Your task to perform on an android device: View the shopping cart on target.com. Search for "logitech g pro" on target.com, select the first entry, and add it to the cart. Image 0: 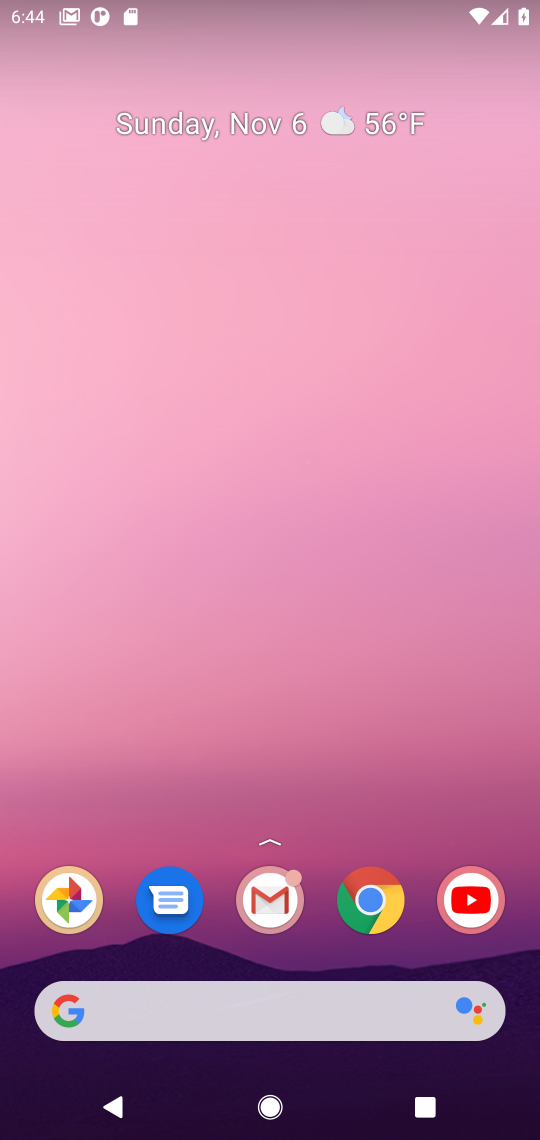
Step 0: drag from (338, 963) to (391, 19)
Your task to perform on an android device: View the shopping cart on target.com. Search for "logitech g pro" on target.com, select the first entry, and add it to the cart. Image 1: 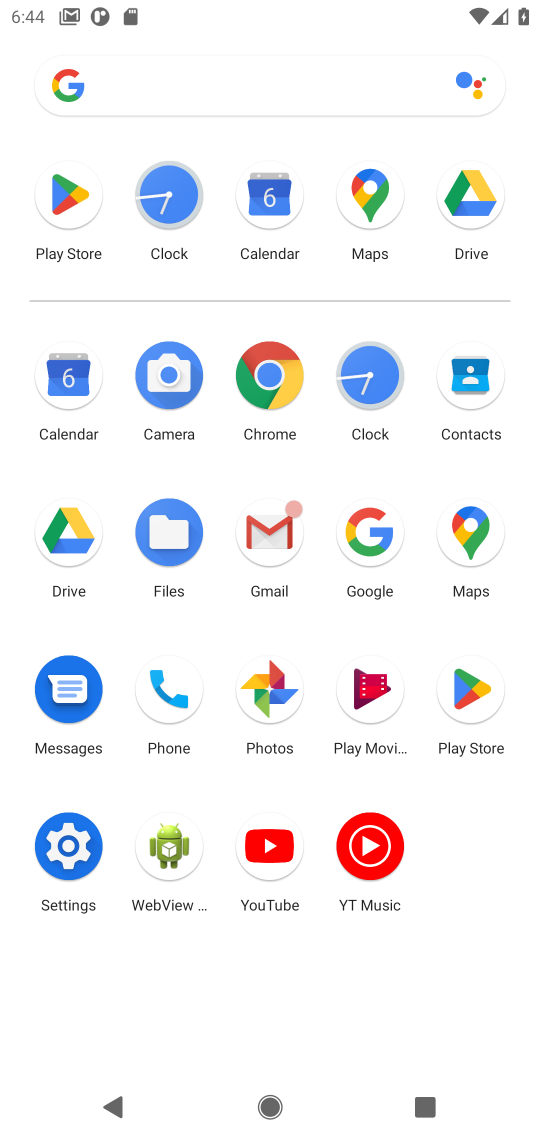
Step 1: click (269, 375)
Your task to perform on an android device: View the shopping cart on target.com. Search for "logitech g pro" on target.com, select the first entry, and add it to the cart. Image 2: 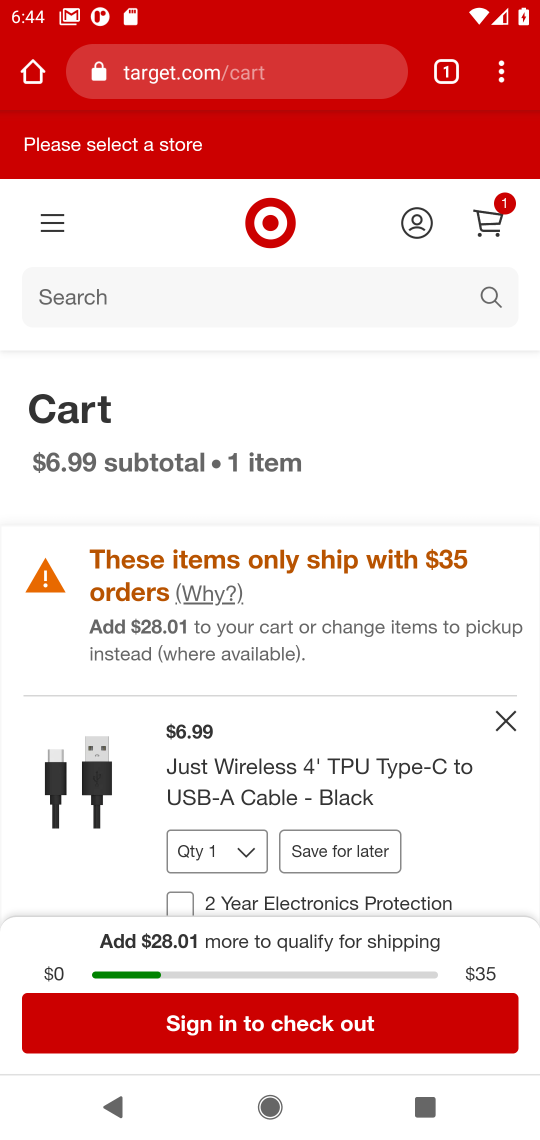
Step 2: click (243, 73)
Your task to perform on an android device: View the shopping cart on target.com. Search for "logitech g pro" on target.com, select the first entry, and add it to the cart. Image 3: 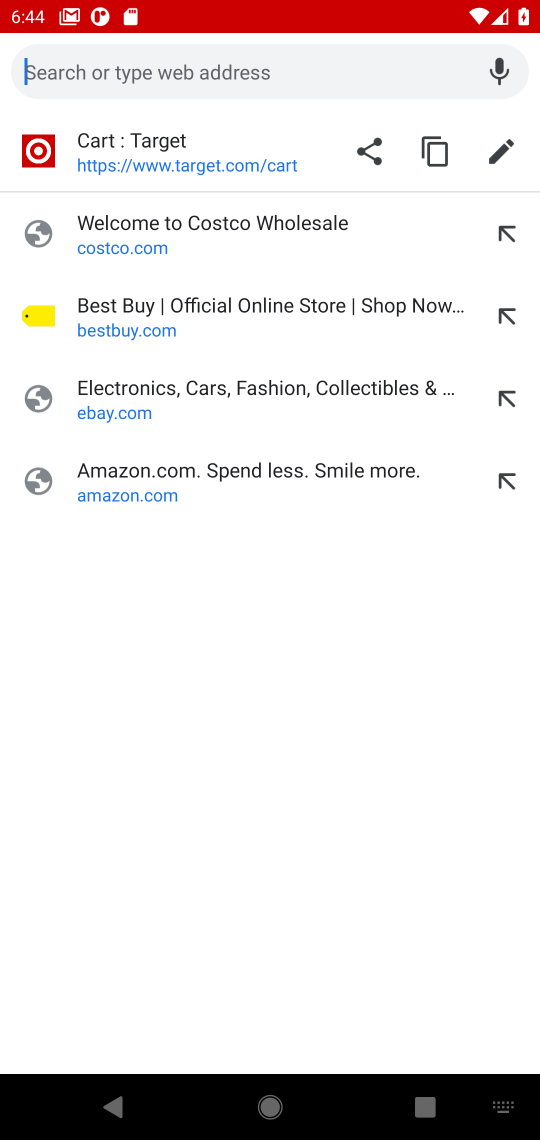
Step 3: type "target.com"
Your task to perform on an android device: View the shopping cart on target.com. Search for "logitech g pro" on target.com, select the first entry, and add it to the cart. Image 4: 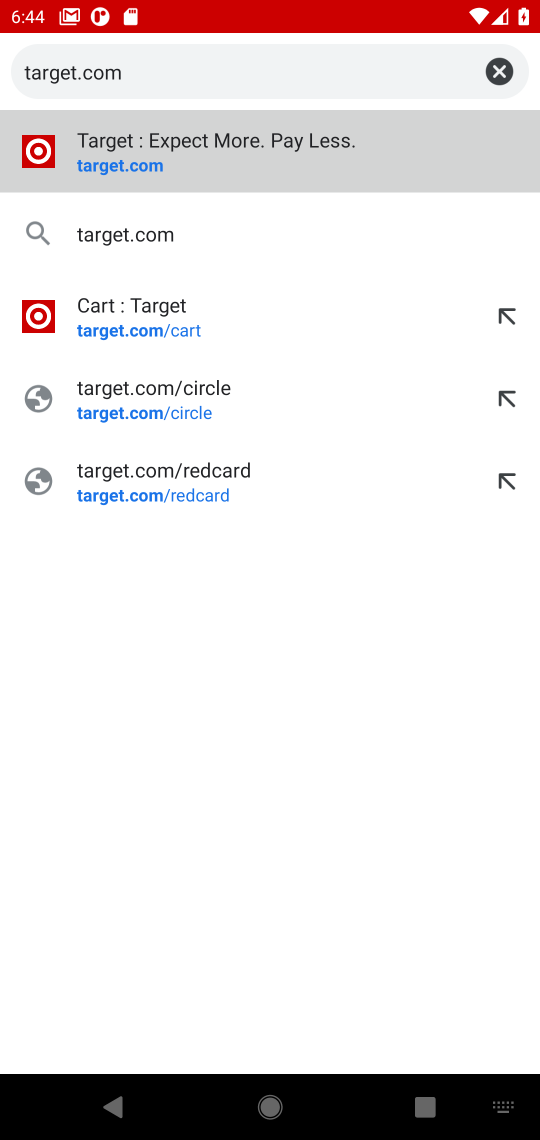
Step 4: press enter
Your task to perform on an android device: View the shopping cart on target.com. Search for "logitech g pro" on target.com, select the first entry, and add it to the cart. Image 5: 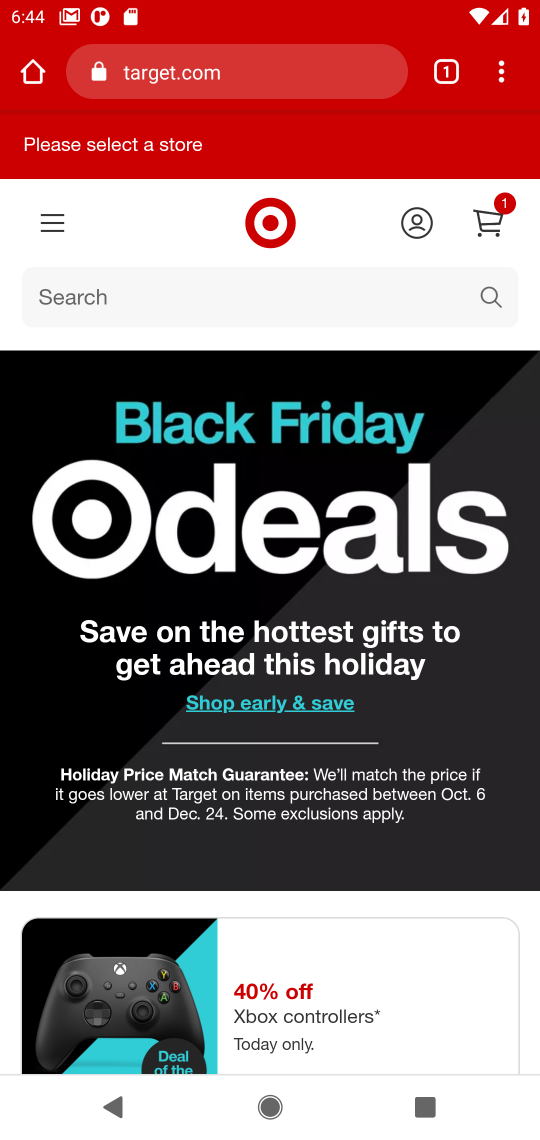
Step 5: click (493, 213)
Your task to perform on an android device: View the shopping cart on target.com. Search for "logitech g pro" on target.com, select the first entry, and add it to the cart. Image 6: 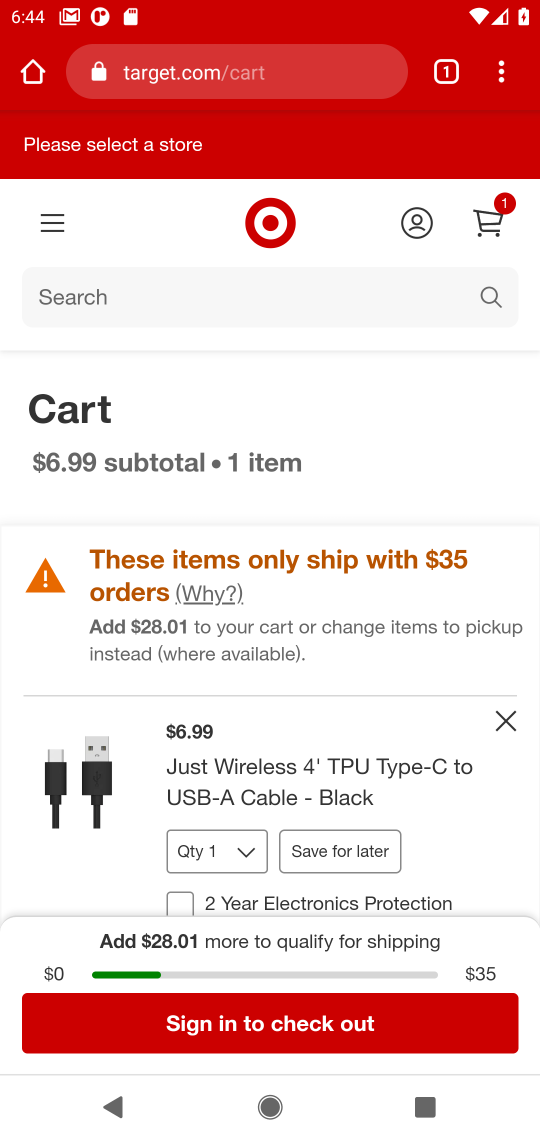
Step 6: click (365, 293)
Your task to perform on an android device: View the shopping cart on target.com. Search for "logitech g pro" on target.com, select the first entry, and add it to the cart. Image 7: 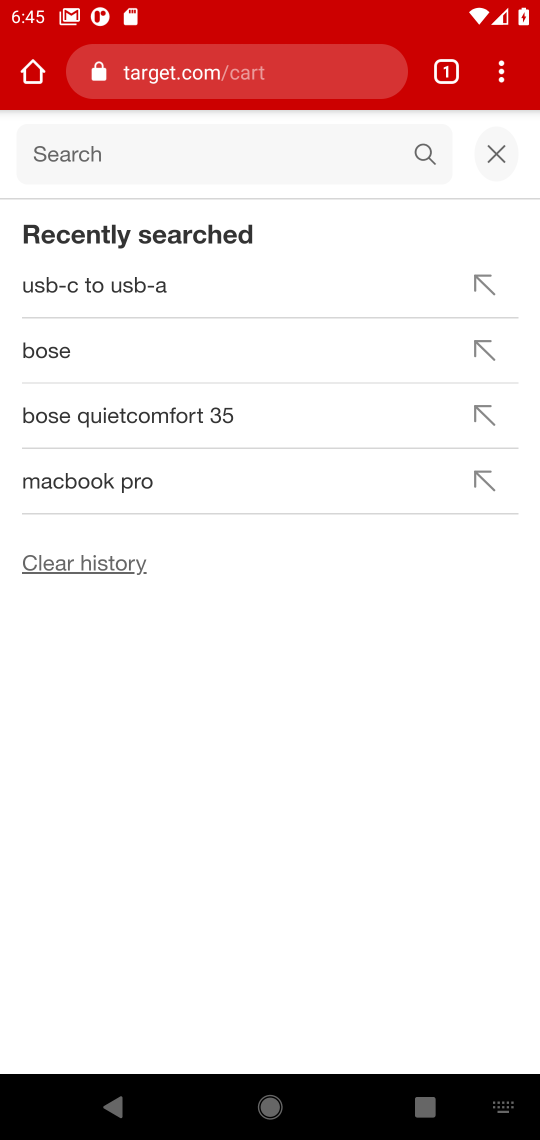
Step 7: type "logitech g pro"
Your task to perform on an android device: View the shopping cart on target.com. Search for "logitech g pro" on target.com, select the first entry, and add it to the cart. Image 8: 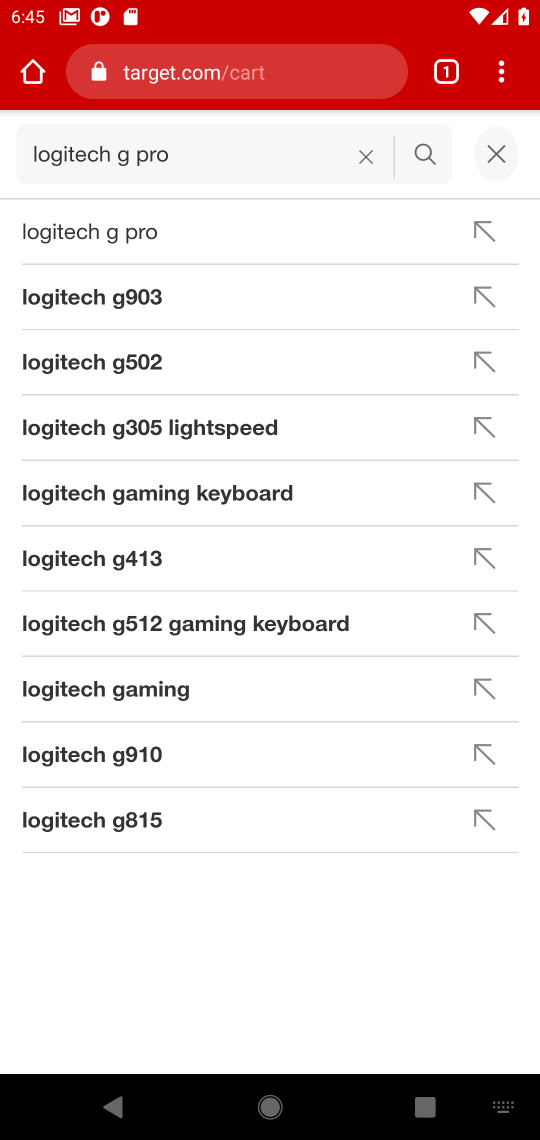
Step 8: press enter
Your task to perform on an android device: View the shopping cart on target.com. Search for "logitech g pro" on target.com, select the first entry, and add it to the cart. Image 9: 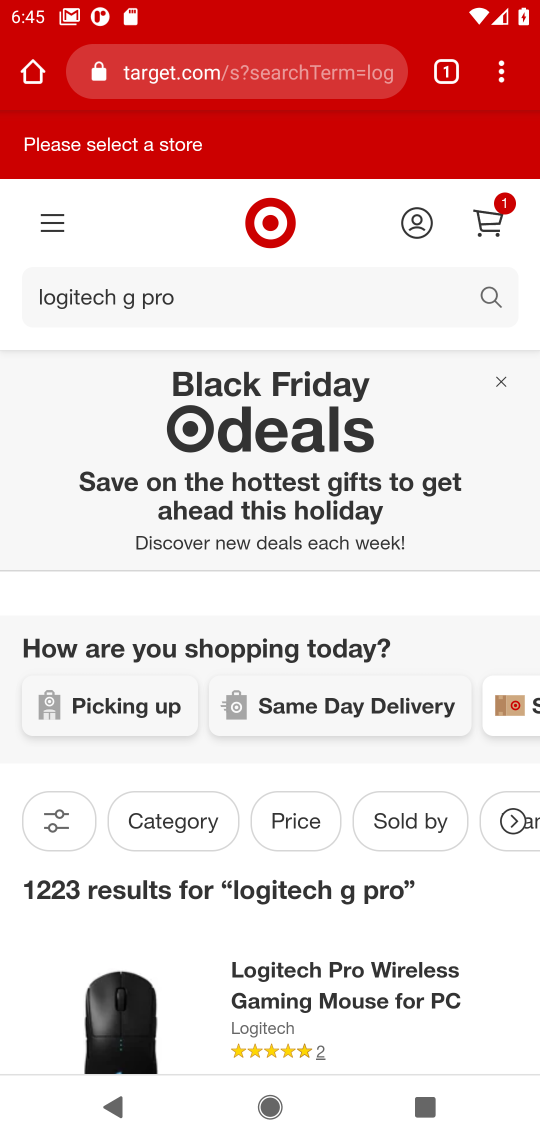
Step 9: task complete